Your task to perform on an android device: toggle wifi Image 0: 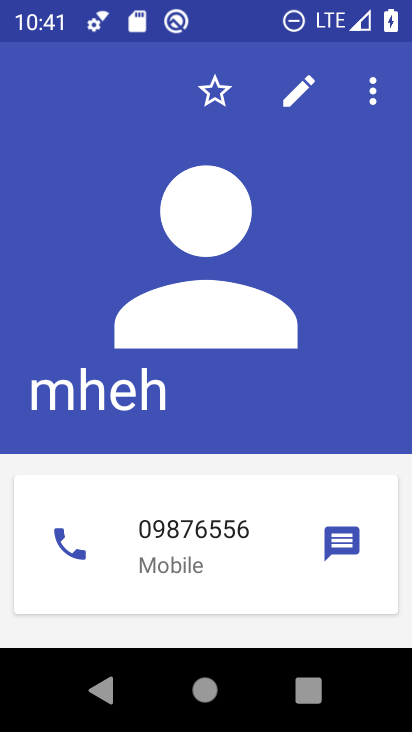
Step 0: press home button
Your task to perform on an android device: toggle wifi Image 1: 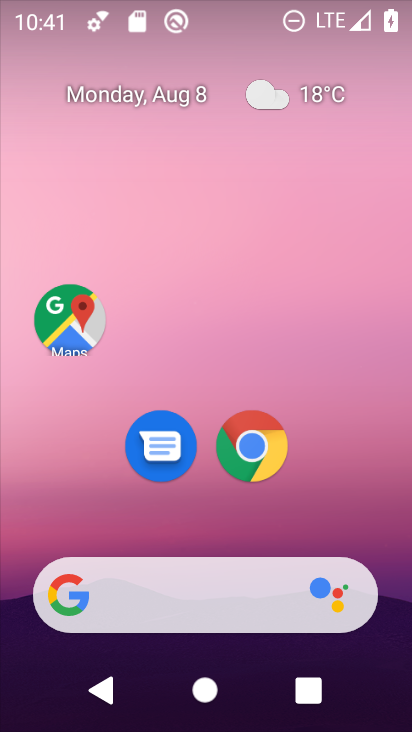
Step 1: drag from (393, 612) to (331, 137)
Your task to perform on an android device: toggle wifi Image 2: 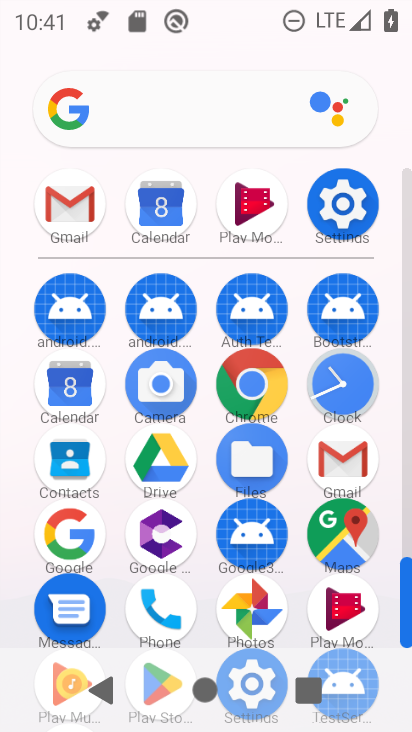
Step 2: click (406, 544)
Your task to perform on an android device: toggle wifi Image 3: 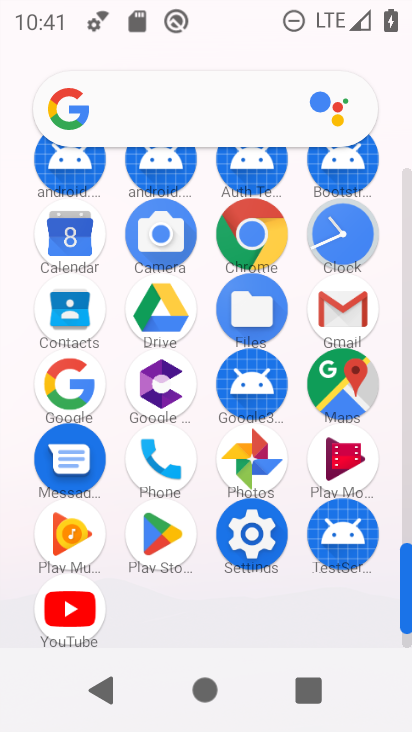
Step 3: click (216, 554)
Your task to perform on an android device: toggle wifi Image 4: 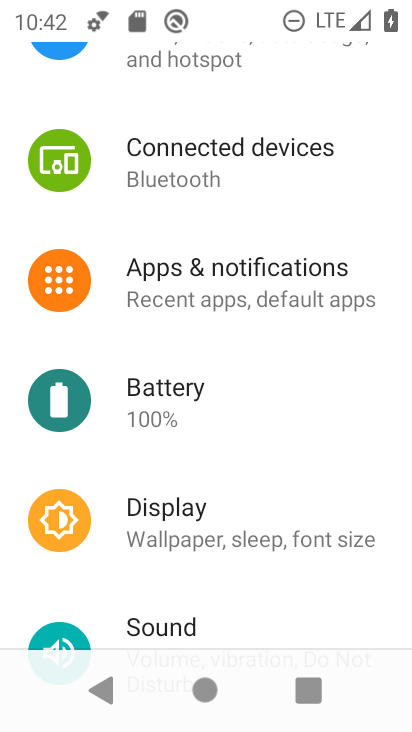
Step 4: drag from (353, 180) to (355, 305)
Your task to perform on an android device: toggle wifi Image 5: 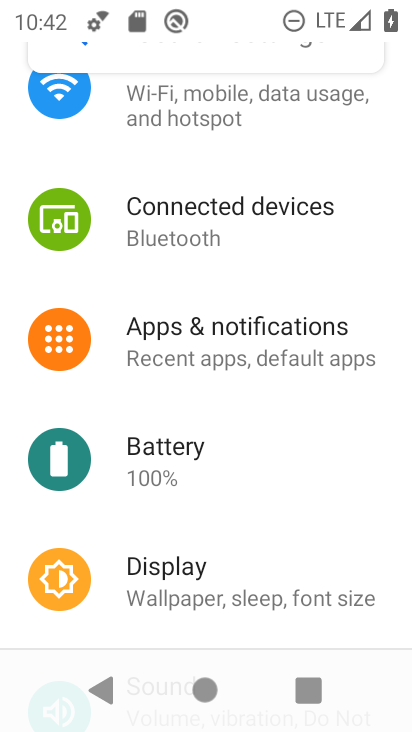
Step 5: drag from (337, 139) to (325, 318)
Your task to perform on an android device: toggle wifi Image 6: 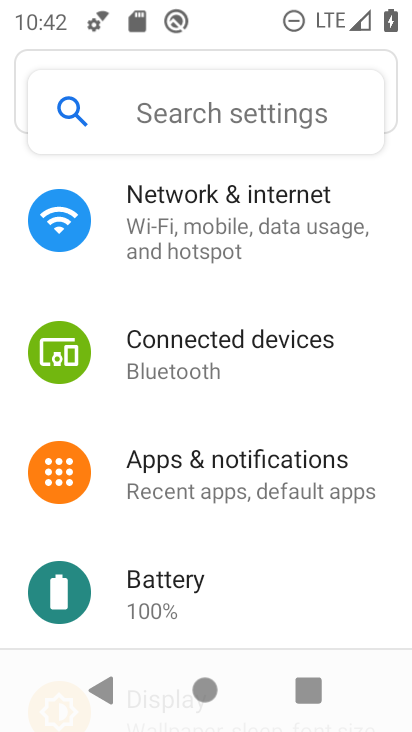
Step 6: click (189, 213)
Your task to perform on an android device: toggle wifi Image 7: 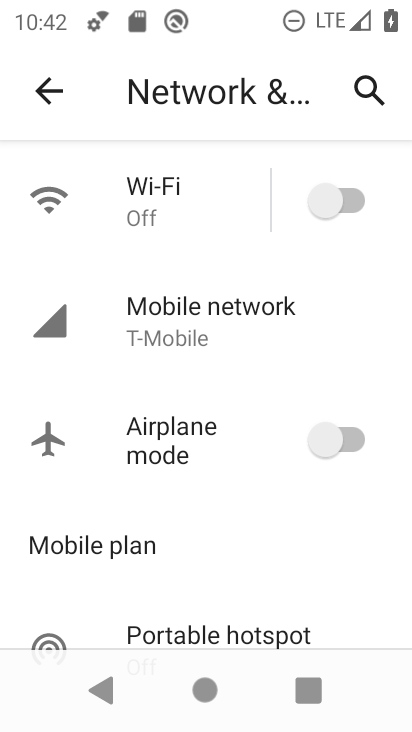
Step 7: click (358, 202)
Your task to perform on an android device: toggle wifi Image 8: 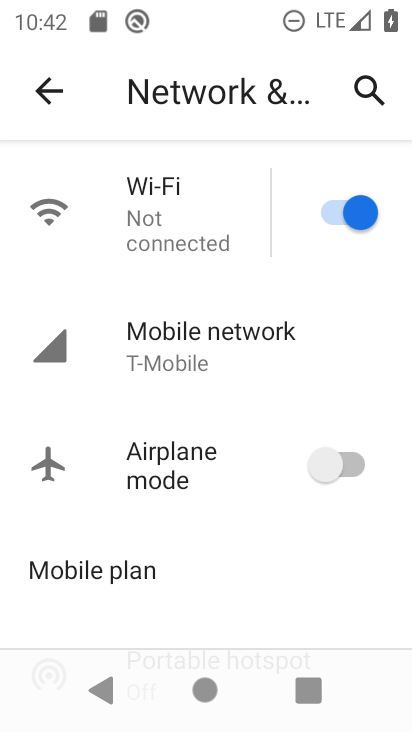
Step 8: task complete